Your task to perform on an android device: Open wifi settings Image 0: 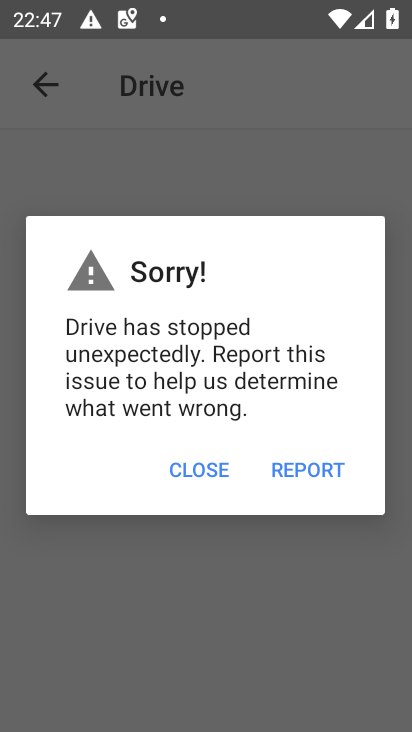
Step 0: press back button
Your task to perform on an android device: Open wifi settings Image 1: 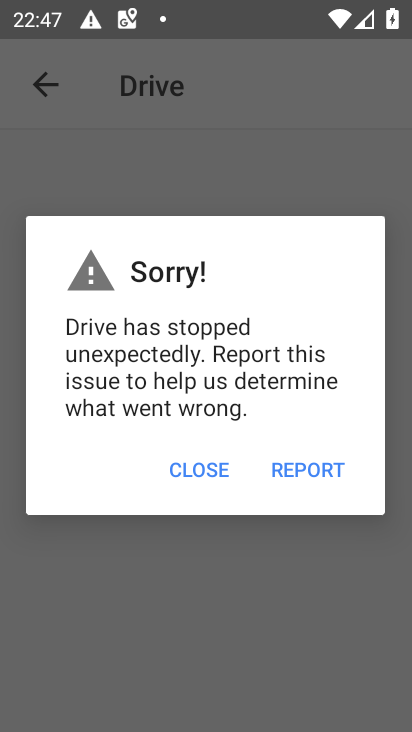
Step 1: press home button
Your task to perform on an android device: Open wifi settings Image 2: 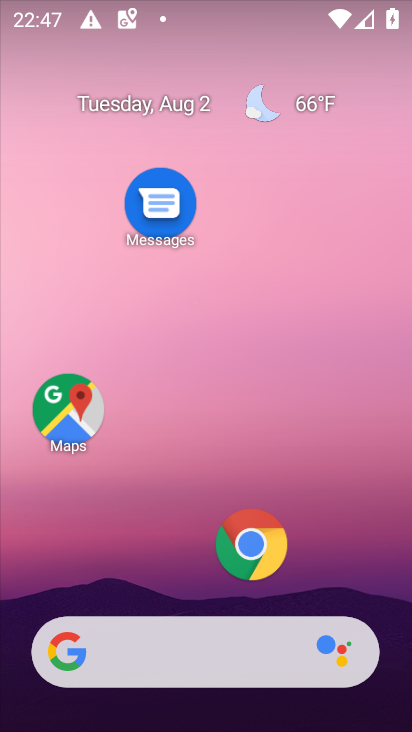
Step 2: drag from (185, 585) to (190, 136)
Your task to perform on an android device: Open wifi settings Image 3: 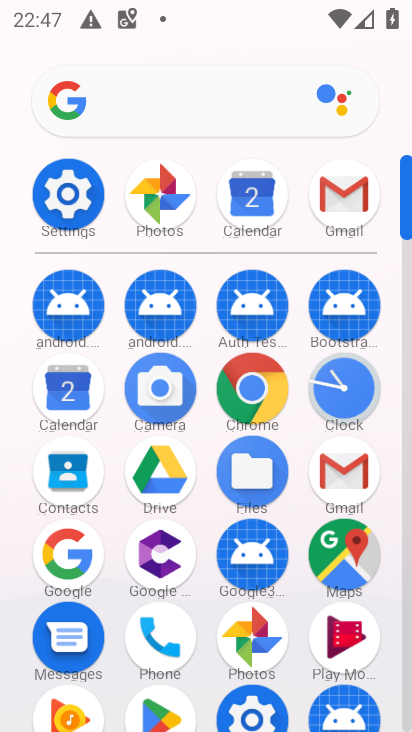
Step 3: click (96, 199)
Your task to perform on an android device: Open wifi settings Image 4: 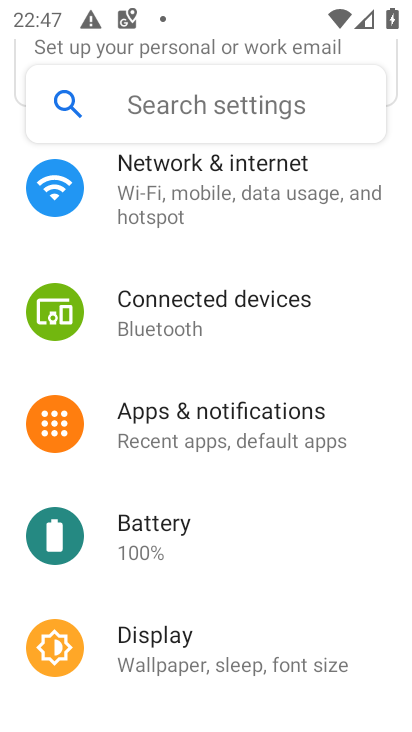
Step 4: click (171, 205)
Your task to perform on an android device: Open wifi settings Image 5: 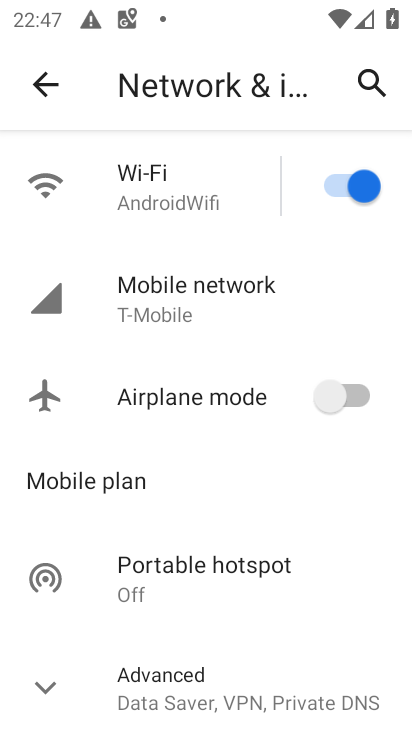
Step 5: click (171, 205)
Your task to perform on an android device: Open wifi settings Image 6: 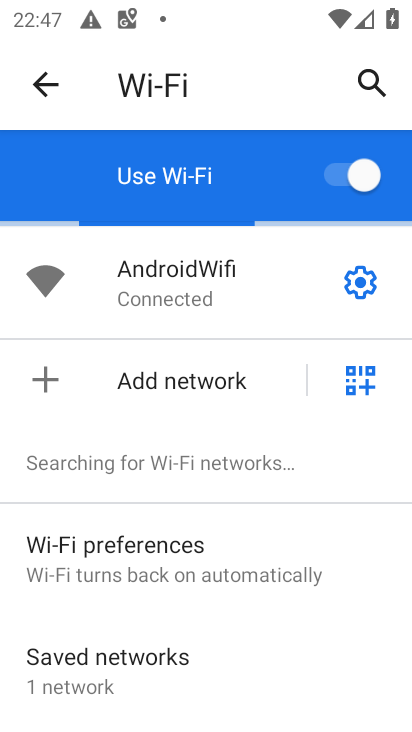
Step 6: task complete